Your task to perform on an android device: View the shopping cart on walmart.com. Search for acer nitro on walmart.com, select the first entry, and add it to the cart. Image 0: 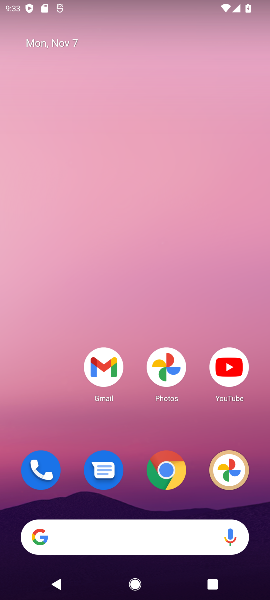
Step 0: click (153, 460)
Your task to perform on an android device: View the shopping cart on walmart.com. Search for acer nitro on walmart.com, select the first entry, and add it to the cart. Image 1: 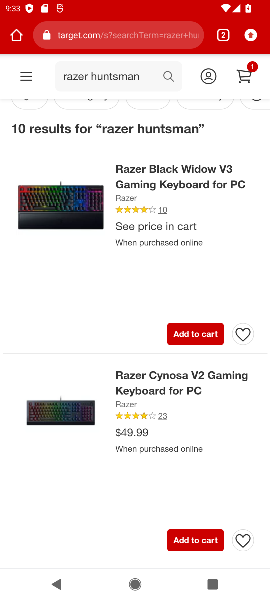
Step 1: click (123, 45)
Your task to perform on an android device: View the shopping cart on walmart.com. Search for acer nitro on walmart.com, select the first entry, and add it to the cart. Image 2: 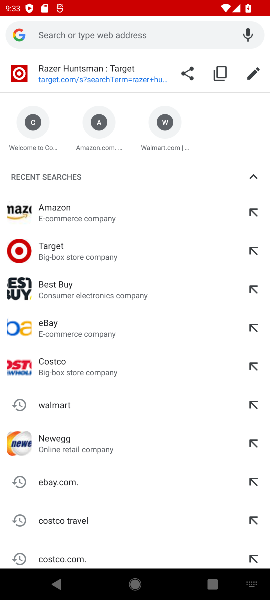
Step 2: click (30, 403)
Your task to perform on an android device: View the shopping cart on walmart.com. Search for acer nitro on walmart.com, select the first entry, and add it to the cart. Image 3: 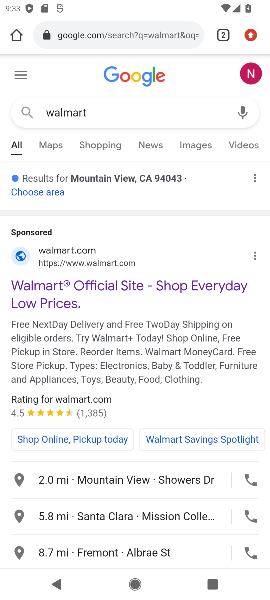
Step 3: click (38, 286)
Your task to perform on an android device: View the shopping cart on walmart.com. Search for acer nitro on walmart.com, select the first entry, and add it to the cart. Image 4: 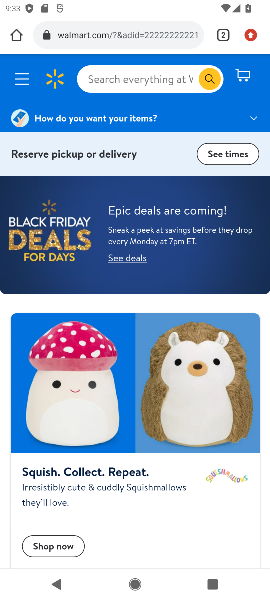
Step 4: click (248, 73)
Your task to perform on an android device: View the shopping cart on walmart.com. Search for acer nitro on walmart.com, select the first entry, and add it to the cart. Image 5: 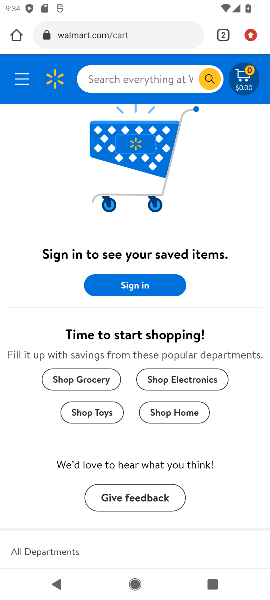
Step 5: click (184, 76)
Your task to perform on an android device: View the shopping cart on walmart.com. Search for acer nitro on walmart.com, select the first entry, and add it to the cart. Image 6: 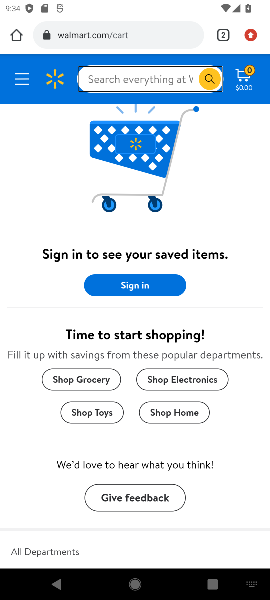
Step 6: type "acer nitro"
Your task to perform on an android device: View the shopping cart on walmart.com. Search for acer nitro on walmart.com, select the first entry, and add it to the cart. Image 7: 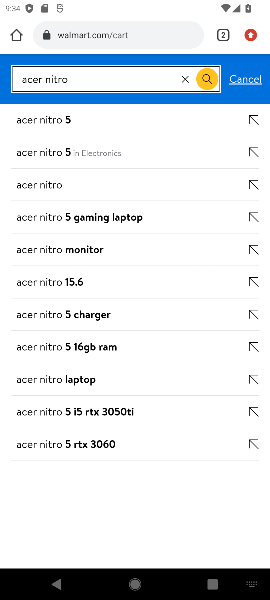
Step 7: click (204, 84)
Your task to perform on an android device: View the shopping cart on walmart.com. Search for acer nitro on walmart.com, select the first entry, and add it to the cart. Image 8: 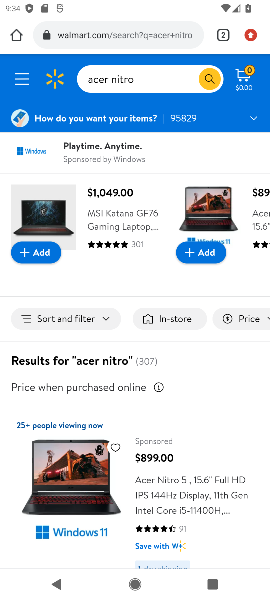
Step 8: click (144, 486)
Your task to perform on an android device: View the shopping cart on walmart.com. Search for acer nitro on walmart.com, select the first entry, and add it to the cart. Image 9: 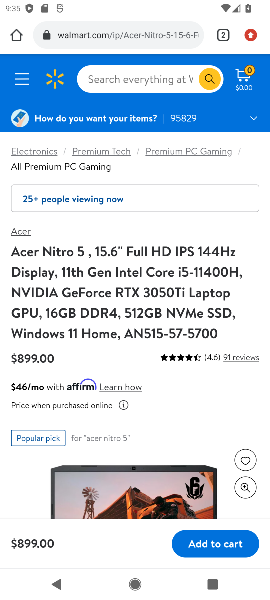
Step 9: click (205, 544)
Your task to perform on an android device: View the shopping cart on walmart.com. Search for acer nitro on walmart.com, select the first entry, and add it to the cart. Image 10: 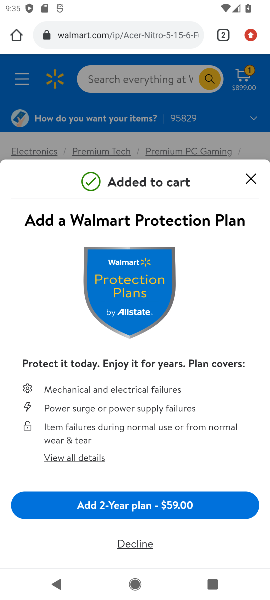
Step 10: task complete